Your task to perform on an android device: check google app version Image 0: 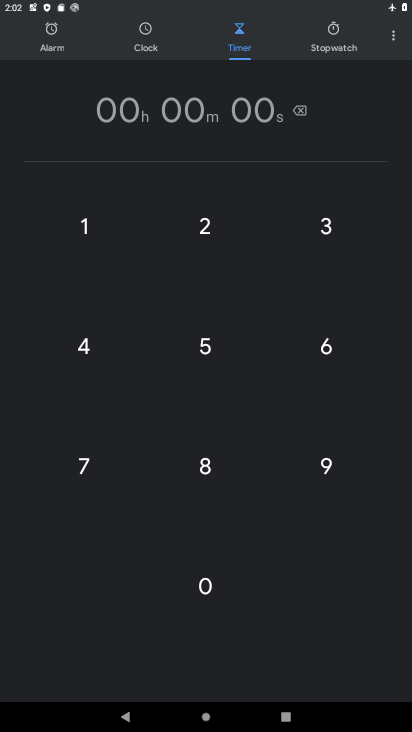
Step 0: press home button
Your task to perform on an android device: check google app version Image 1: 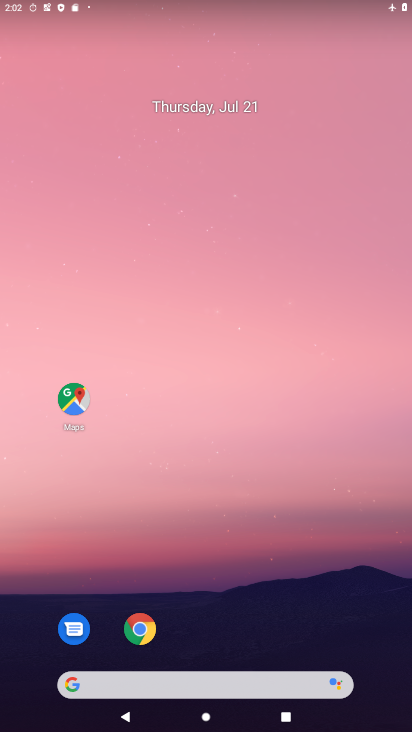
Step 1: drag from (11, 704) to (394, 25)
Your task to perform on an android device: check google app version Image 2: 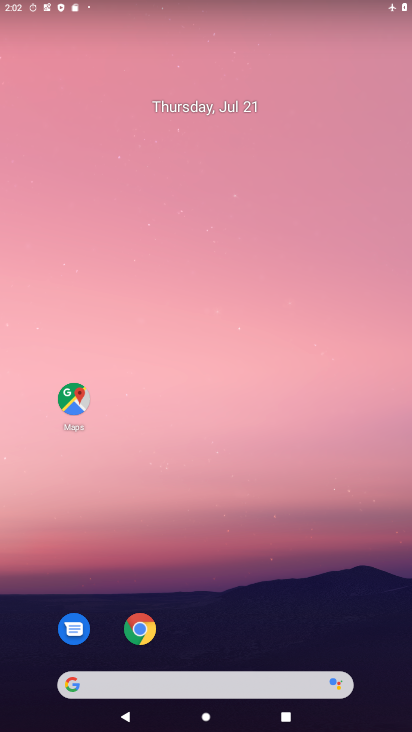
Step 2: drag from (31, 689) to (227, 26)
Your task to perform on an android device: check google app version Image 3: 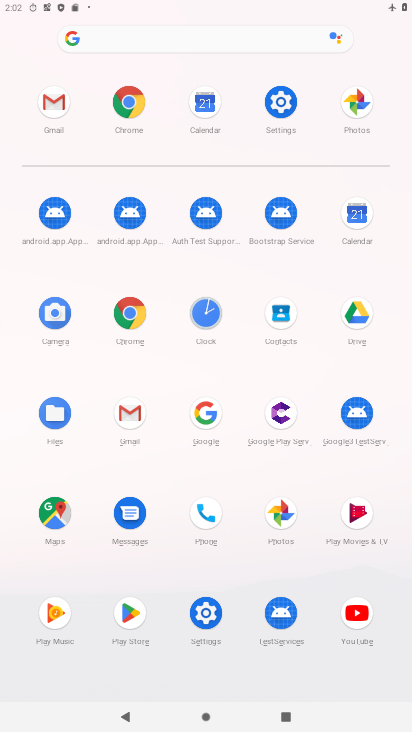
Step 3: click (186, 609)
Your task to perform on an android device: check google app version Image 4: 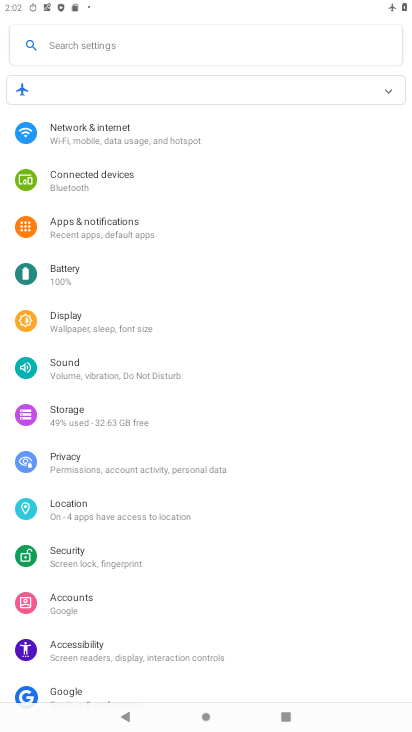
Step 4: click (86, 606)
Your task to perform on an android device: check google app version Image 5: 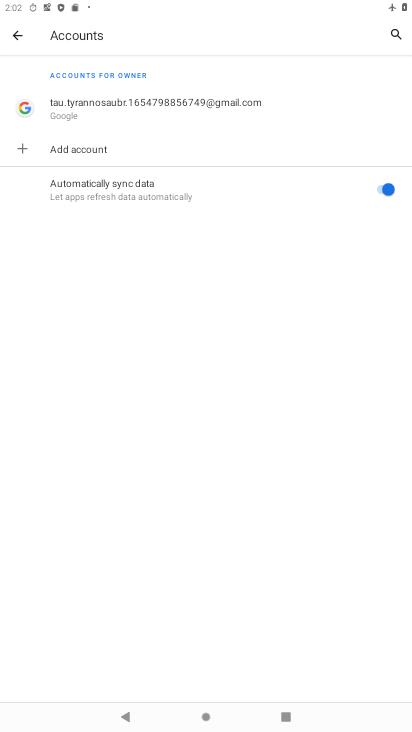
Step 5: click (20, 32)
Your task to perform on an android device: check google app version Image 6: 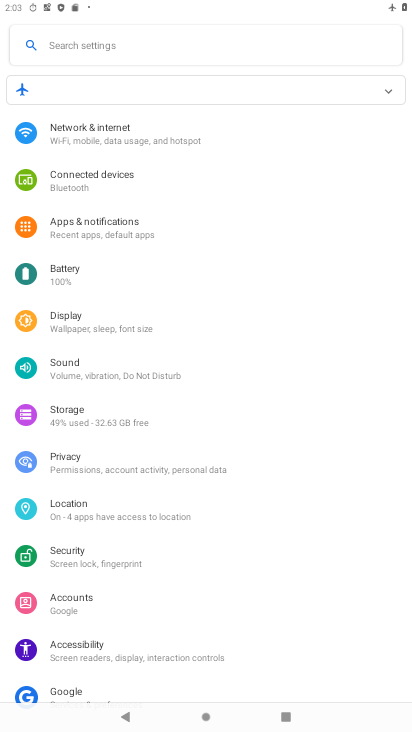
Step 6: click (95, 569)
Your task to perform on an android device: check google app version Image 7: 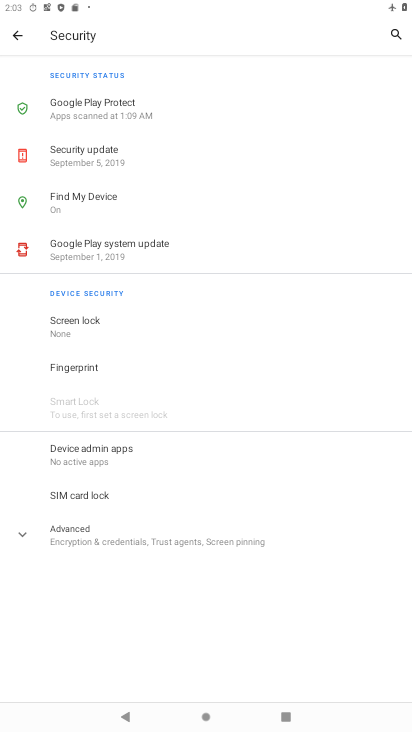
Step 7: click (113, 537)
Your task to perform on an android device: check google app version Image 8: 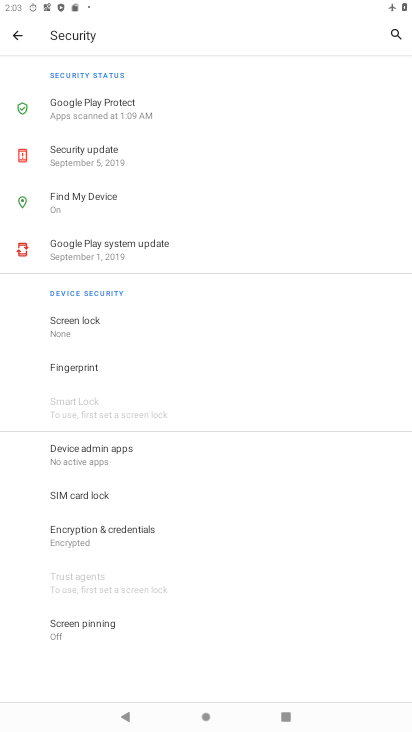
Step 8: task complete